Your task to perform on an android device: turn on data saver in the chrome app Image 0: 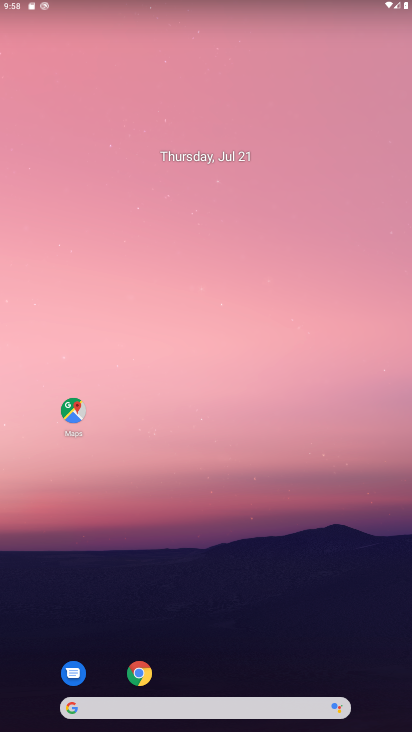
Step 0: click (138, 676)
Your task to perform on an android device: turn on data saver in the chrome app Image 1: 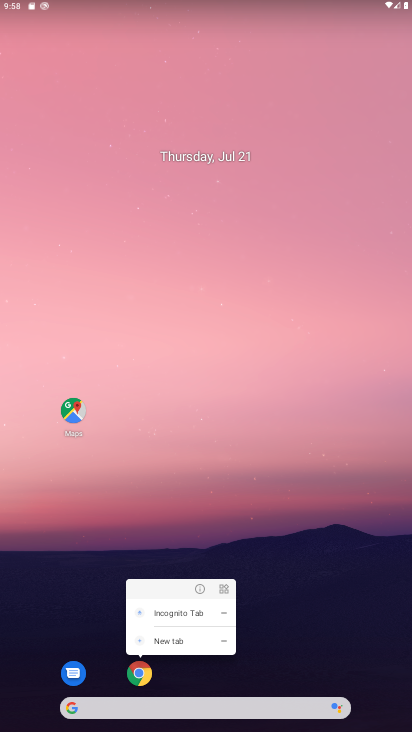
Step 1: click (142, 677)
Your task to perform on an android device: turn on data saver in the chrome app Image 2: 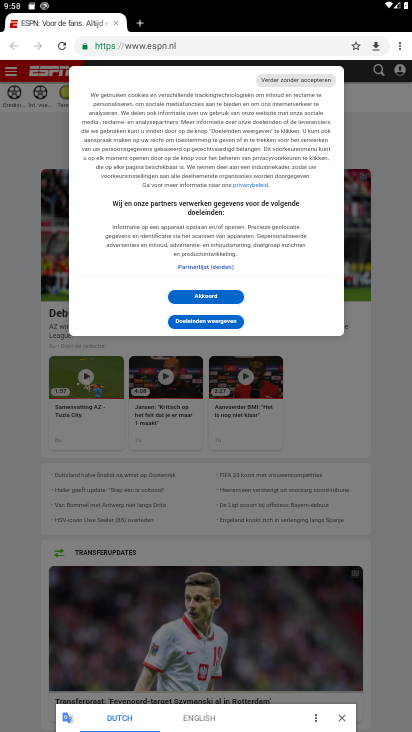
Step 2: click (400, 44)
Your task to perform on an android device: turn on data saver in the chrome app Image 3: 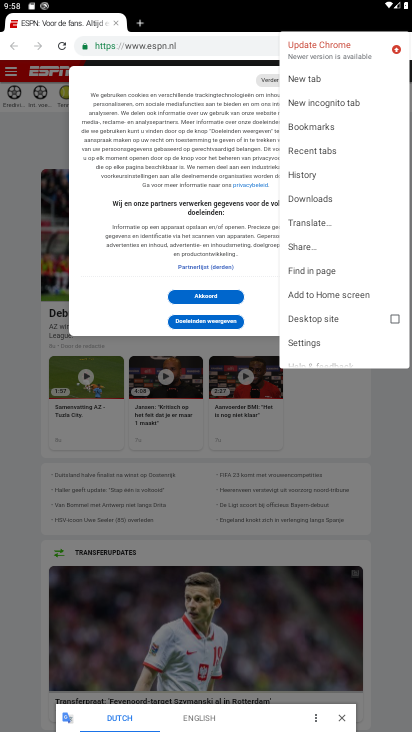
Step 3: click (297, 342)
Your task to perform on an android device: turn on data saver in the chrome app Image 4: 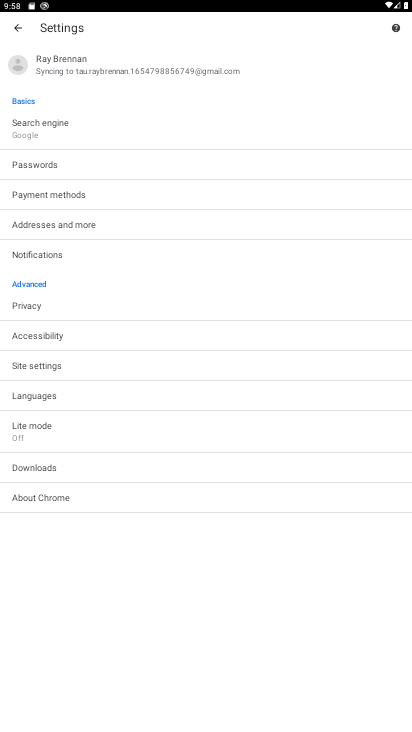
Step 4: click (52, 443)
Your task to perform on an android device: turn on data saver in the chrome app Image 5: 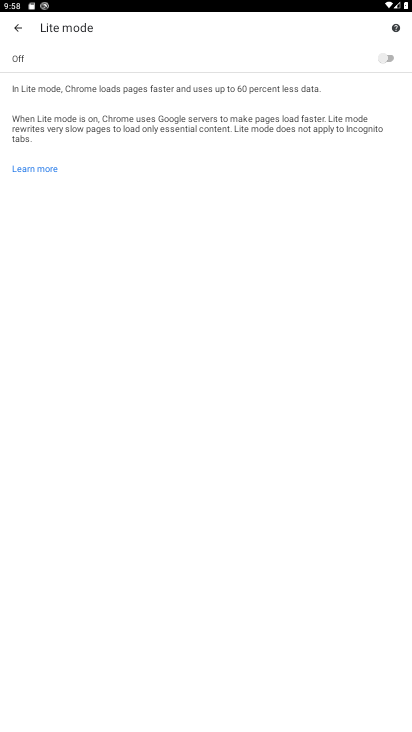
Step 5: click (382, 56)
Your task to perform on an android device: turn on data saver in the chrome app Image 6: 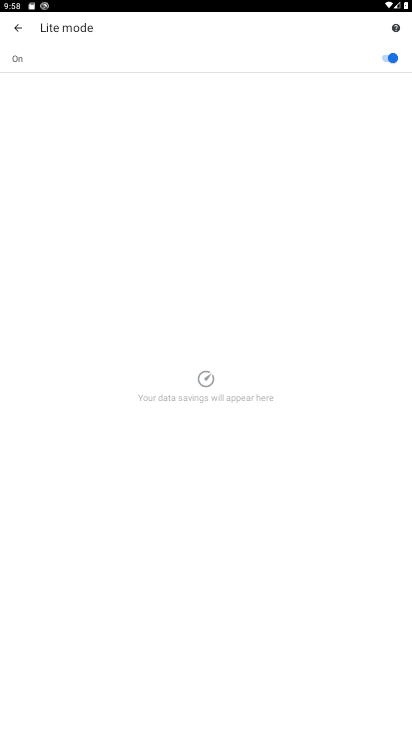
Step 6: task complete